Your task to perform on an android device: Show me the alarms in the clock app Image 0: 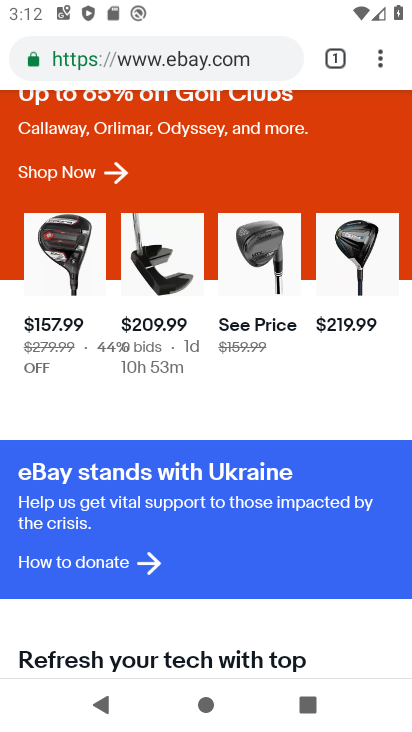
Step 0: press home button
Your task to perform on an android device: Show me the alarms in the clock app Image 1: 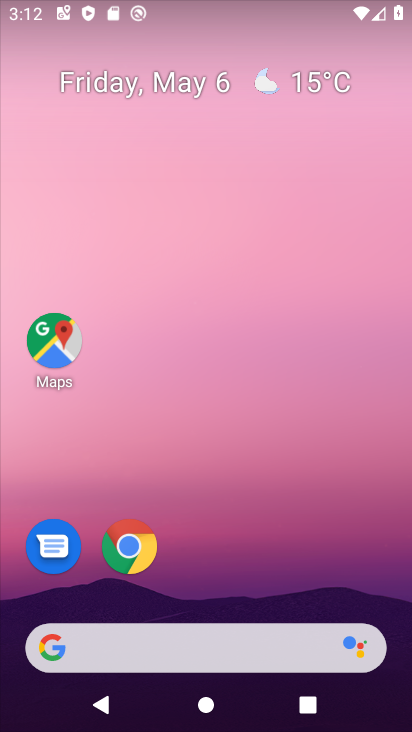
Step 1: drag from (147, 625) to (138, 305)
Your task to perform on an android device: Show me the alarms in the clock app Image 2: 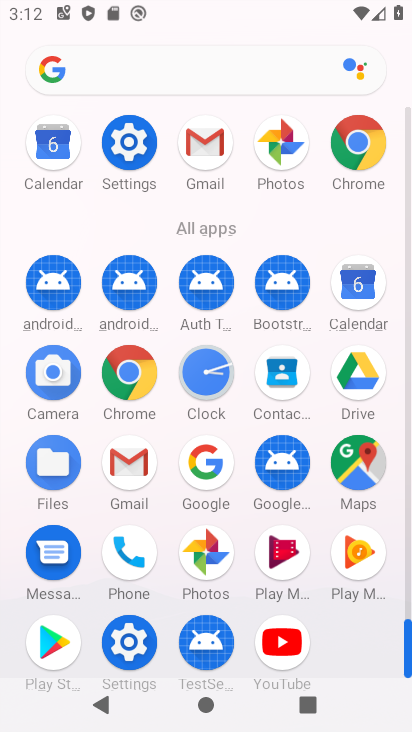
Step 2: click (201, 373)
Your task to perform on an android device: Show me the alarms in the clock app Image 3: 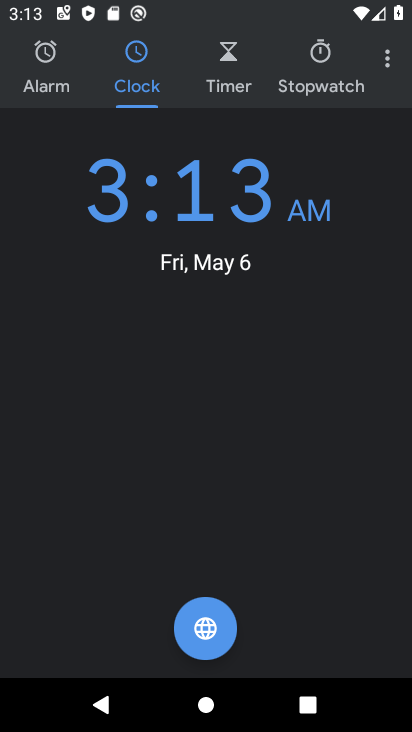
Step 3: click (44, 68)
Your task to perform on an android device: Show me the alarms in the clock app Image 4: 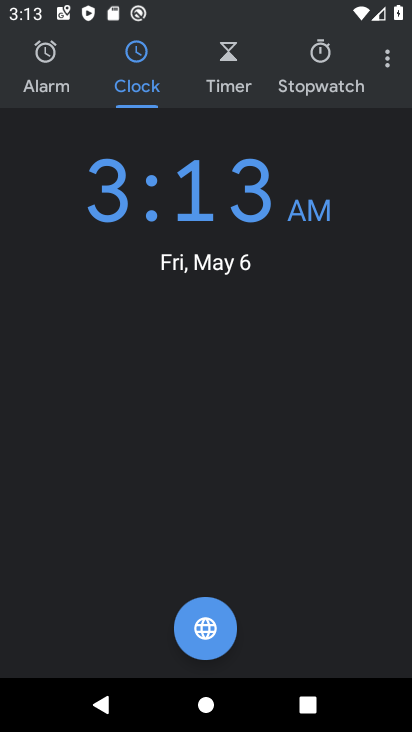
Step 4: click (43, 83)
Your task to perform on an android device: Show me the alarms in the clock app Image 5: 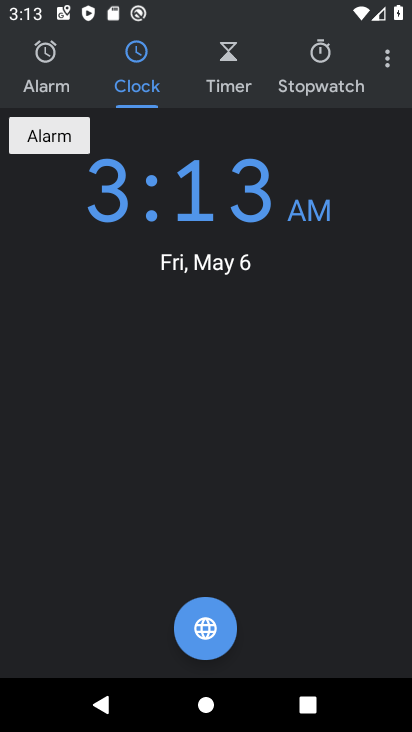
Step 5: click (43, 62)
Your task to perform on an android device: Show me the alarms in the clock app Image 6: 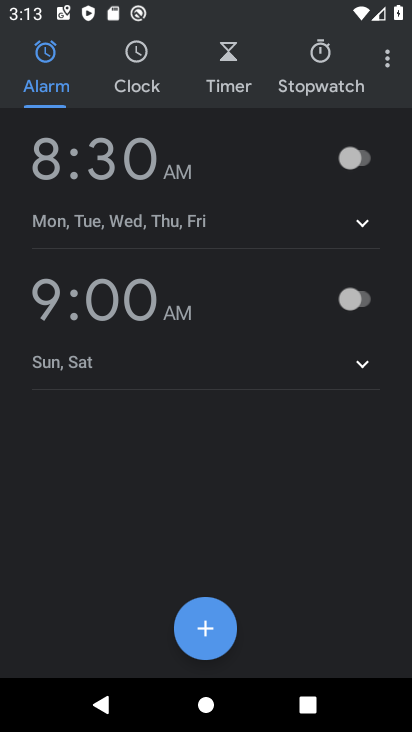
Step 6: task complete